Your task to perform on an android device: turn notification dots off Image 0: 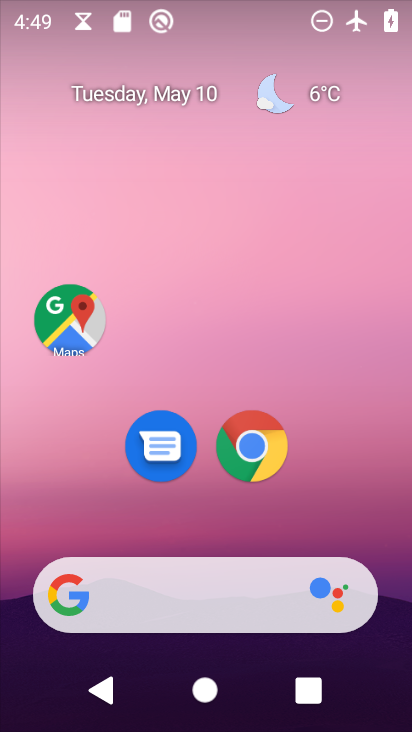
Step 0: drag from (213, 511) to (180, 105)
Your task to perform on an android device: turn notification dots off Image 1: 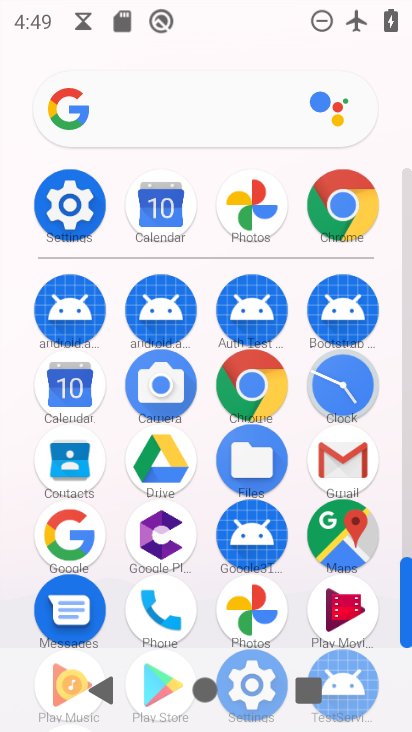
Step 1: click (26, 204)
Your task to perform on an android device: turn notification dots off Image 2: 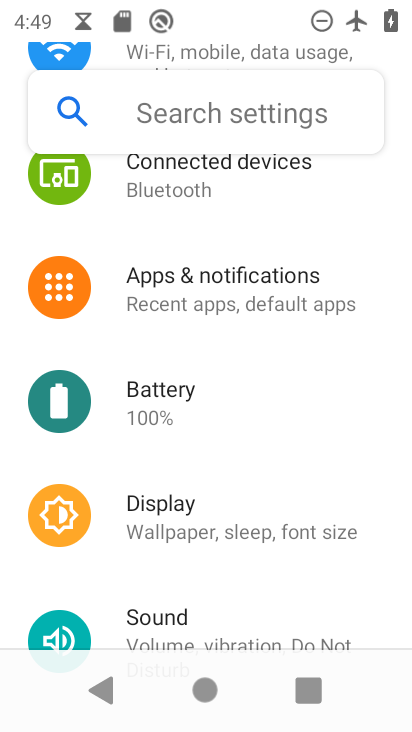
Step 2: click (204, 300)
Your task to perform on an android device: turn notification dots off Image 3: 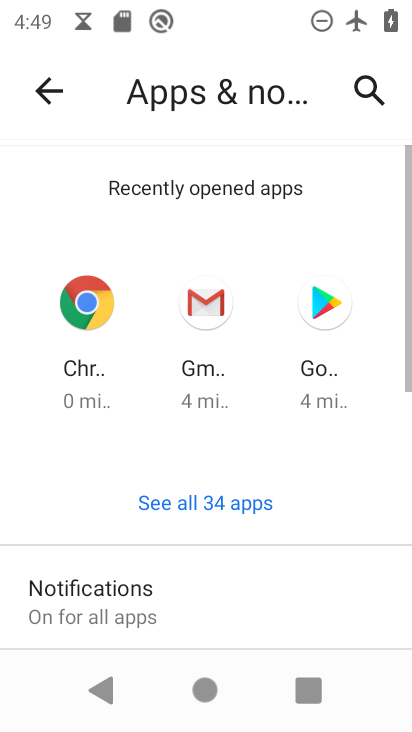
Step 3: drag from (227, 546) to (205, 211)
Your task to perform on an android device: turn notification dots off Image 4: 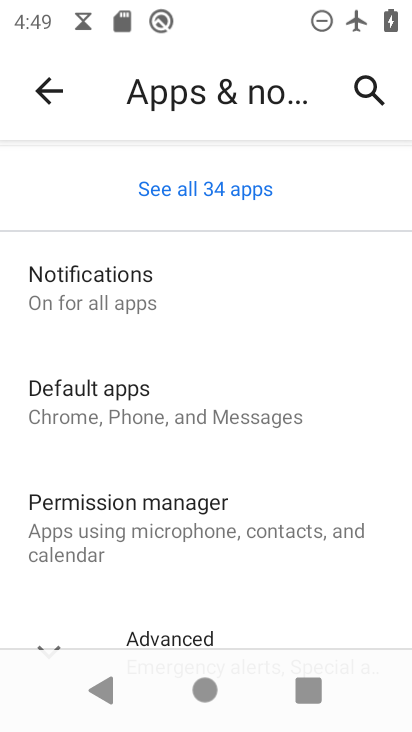
Step 4: click (168, 293)
Your task to perform on an android device: turn notification dots off Image 5: 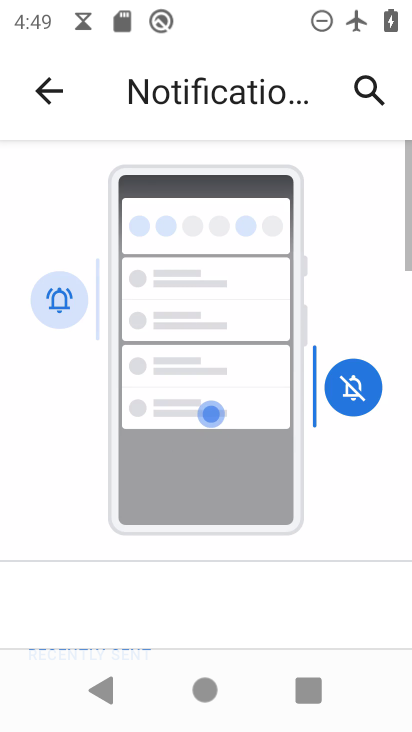
Step 5: drag from (219, 534) to (209, 252)
Your task to perform on an android device: turn notification dots off Image 6: 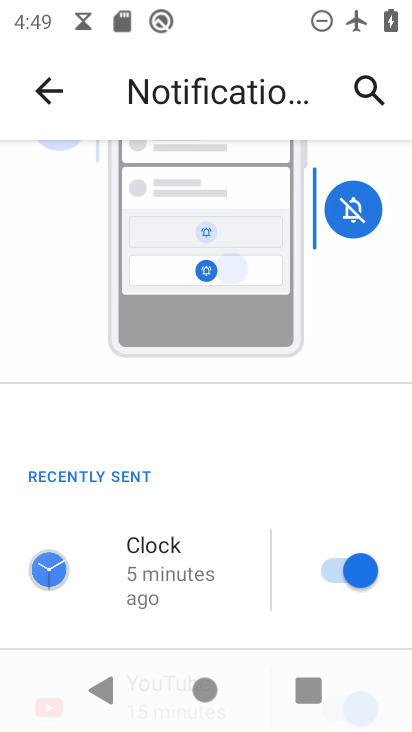
Step 6: drag from (204, 575) to (209, 186)
Your task to perform on an android device: turn notification dots off Image 7: 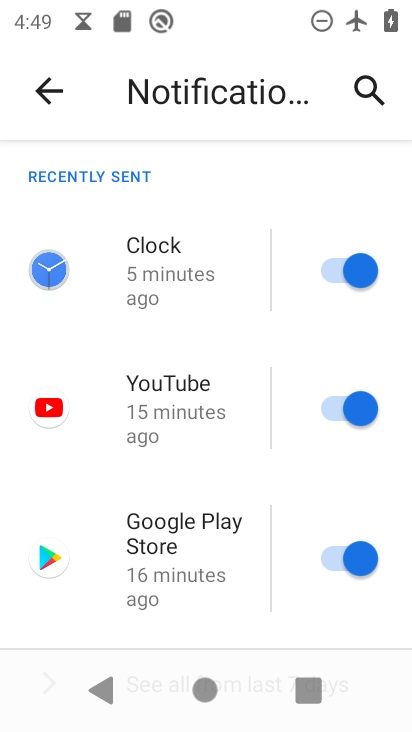
Step 7: drag from (199, 542) to (199, 164)
Your task to perform on an android device: turn notification dots off Image 8: 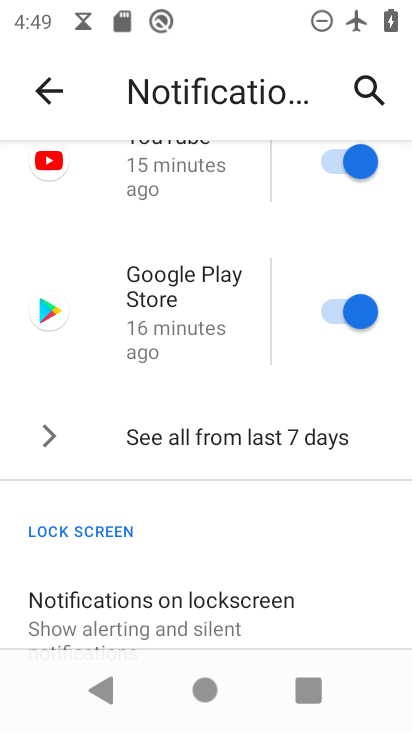
Step 8: drag from (187, 597) to (191, 240)
Your task to perform on an android device: turn notification dots off Image 9: 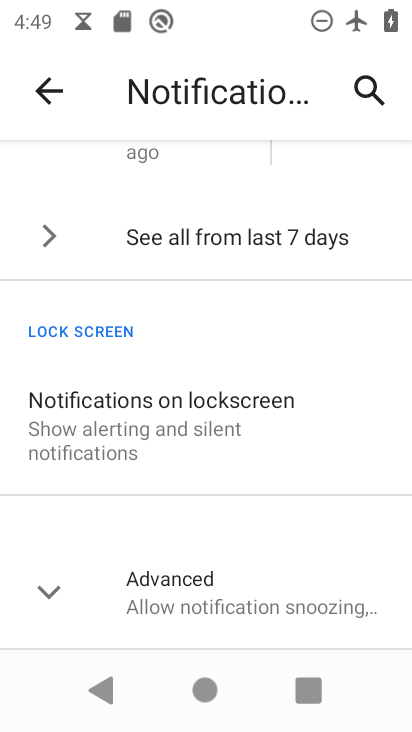
Step 9: click (196, 601)
Your task to perform on an android device: turn notification dots off Image 10: 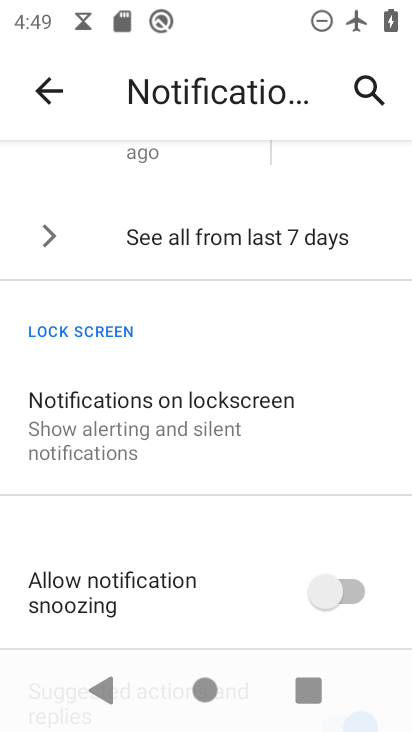
Step 10: task complete